Your task to perform on an android device: toggle notification dots Image 0: 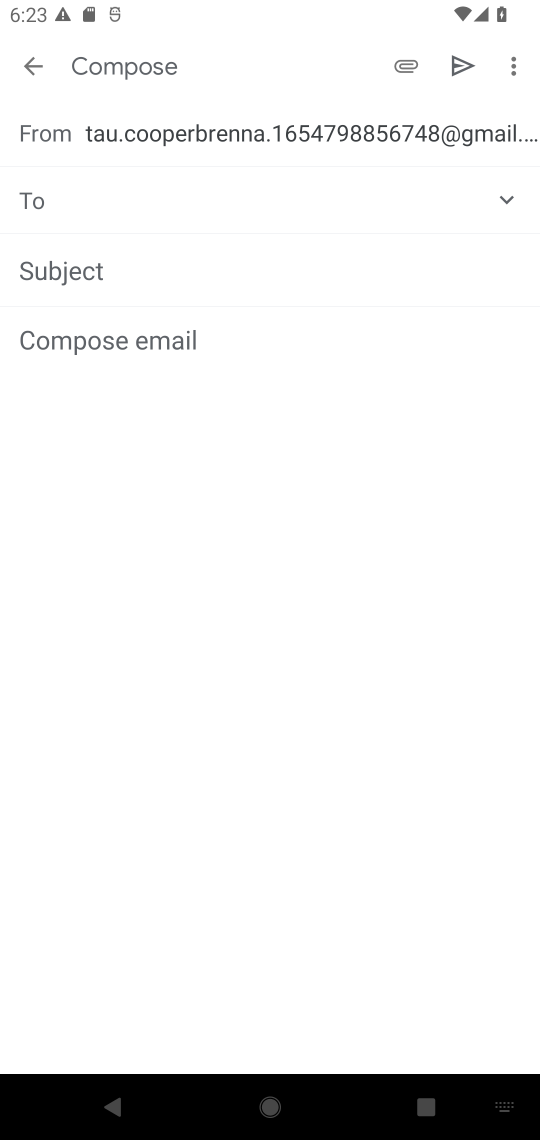
Step 0: press home button
Your task to perform on an android device: toggle notification dots Image 1: 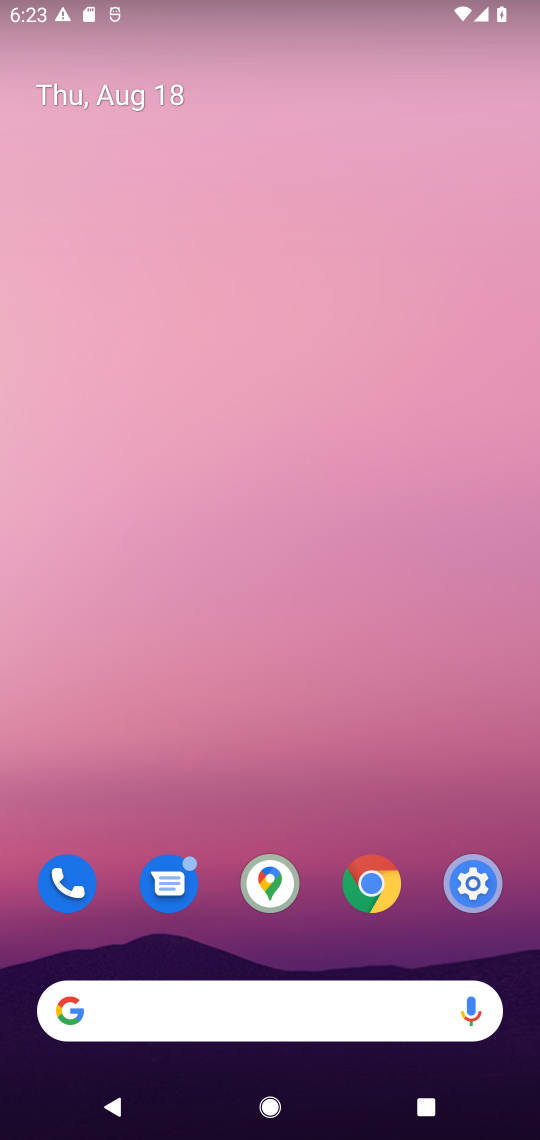
Step 1: click (474, 878)
Your task to perform on an android device: toggle notification dots Image 2: 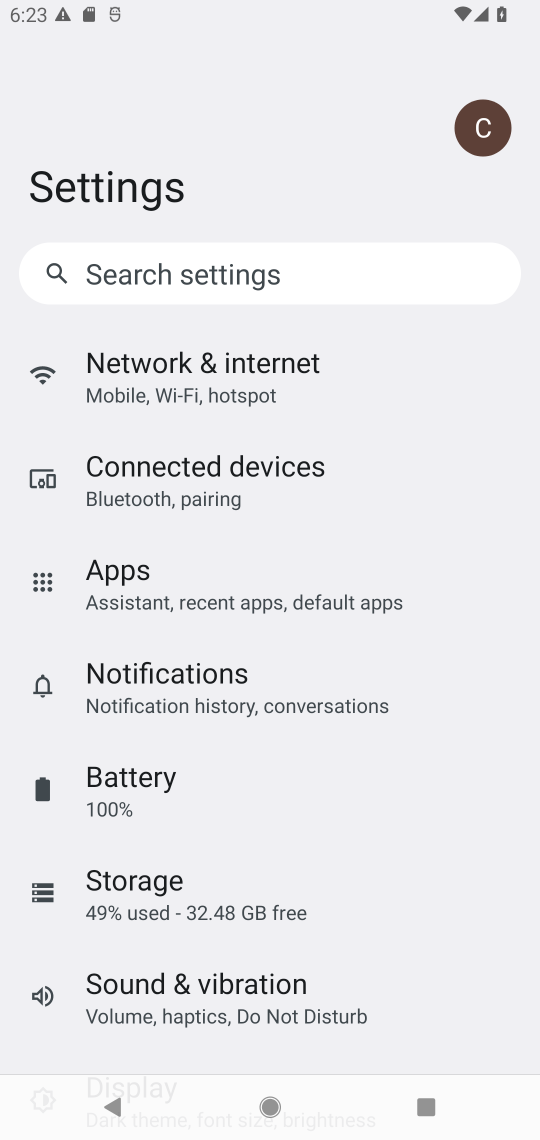
Step 2: click (271, 705)
Your task to perform on an android device: toggle notification dots Image 3: 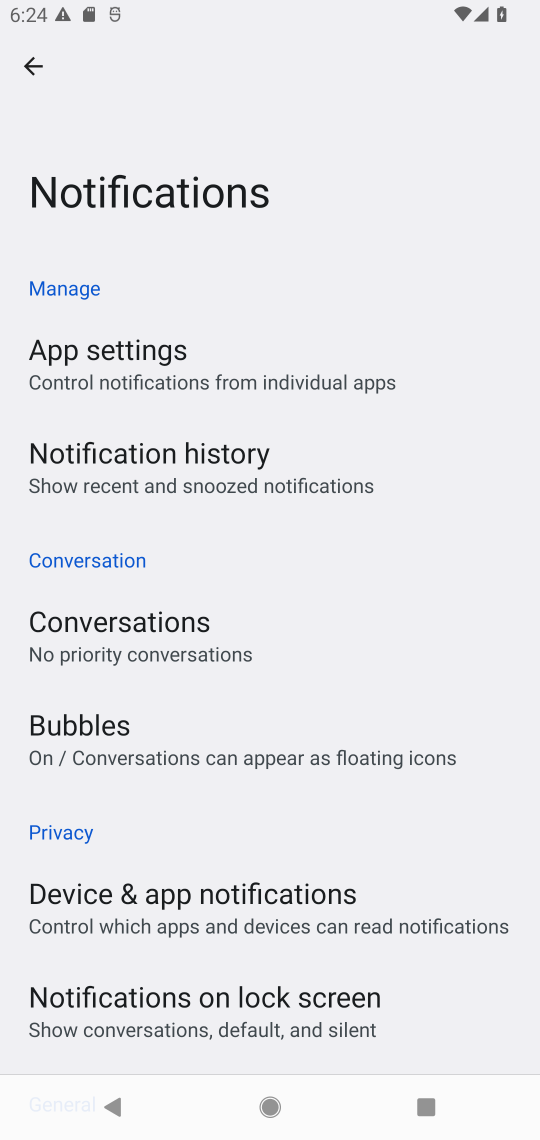
Step 3: task complete